Your task to perform on an android device: Open network settings Image 0: 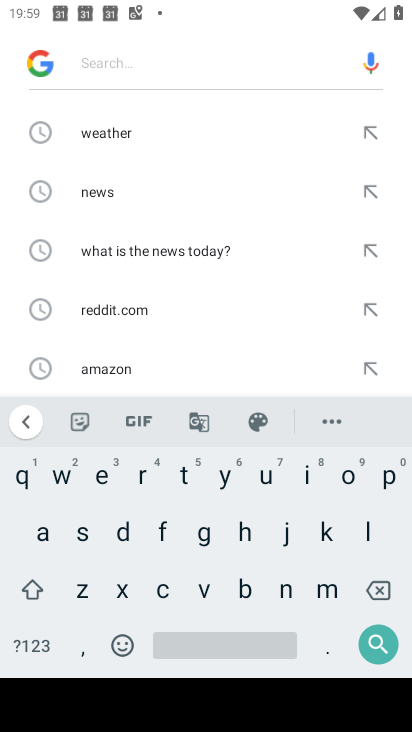
Step 0: press home button
Your task to perform on an android device: Open network settings Image 1: 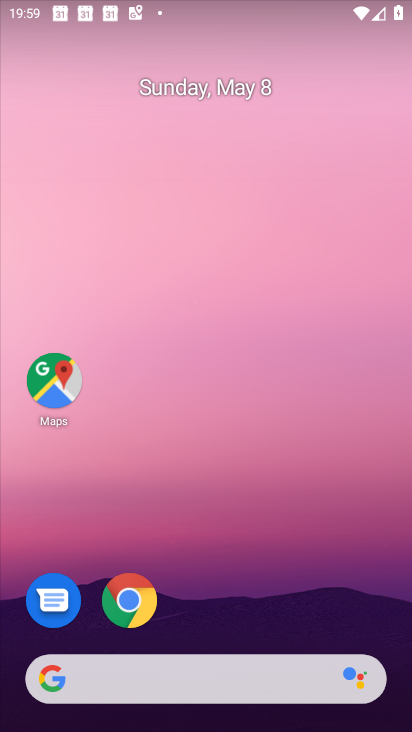
Step 1: drag from (305, 690) to (274, 272)
Your task to perform on an android device: Open network settings Image 2: 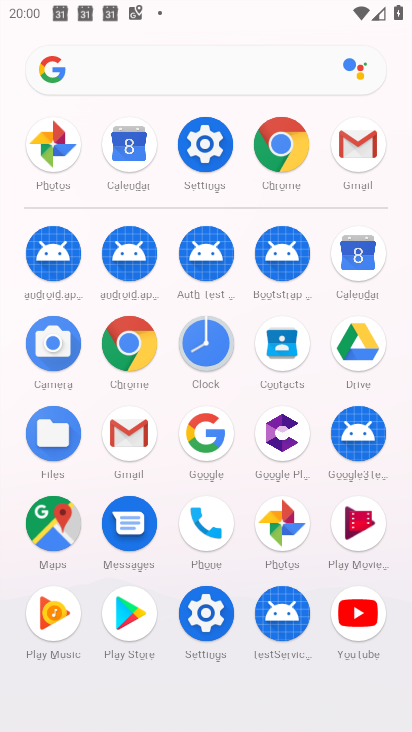
Step 2: click (205, 611)
Your task to perform on an android device: Open network settings Image 3: 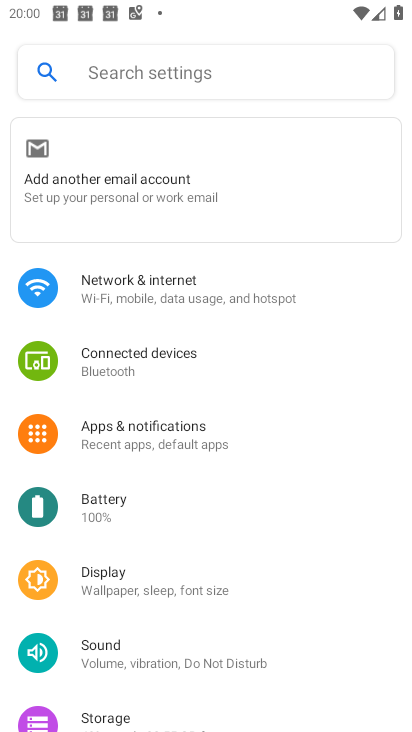
Step 3: click (163, 76)
Your task to perform on an android device: Open network settings Image 4: 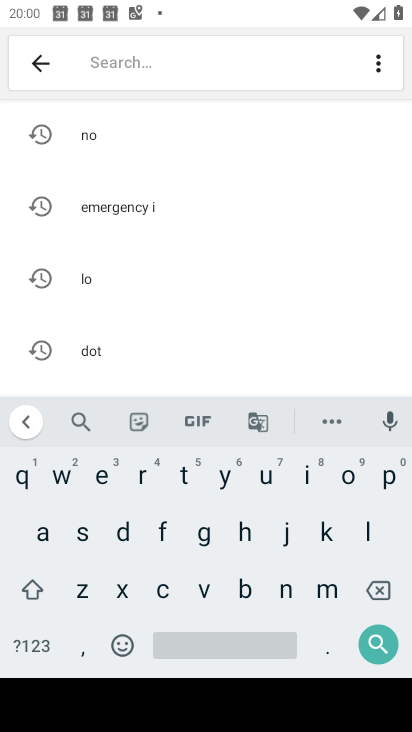
Step 4: click (292, 619)
Your task to perform on an android device: Open network settings Image 5: 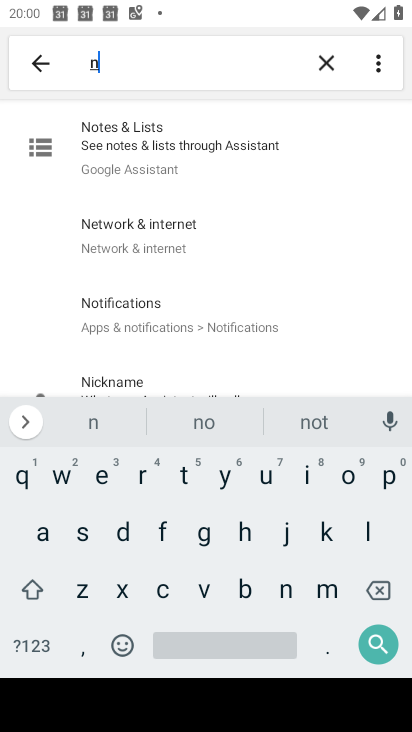
Step 5: click (100, 479)
Your task to perform on an android device: Open network settings Image 6: 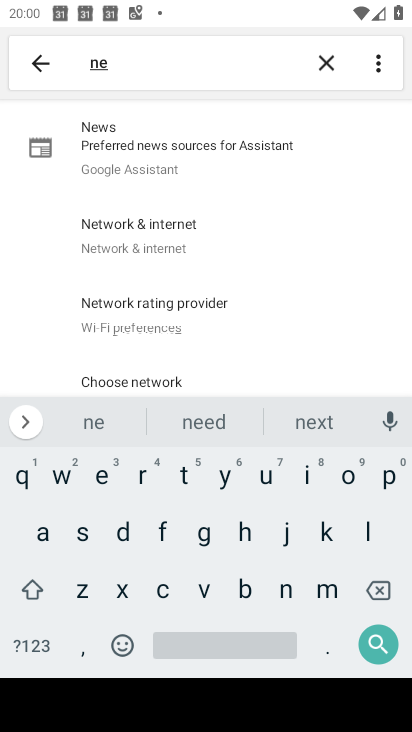
Step 6: click (188, 480)
Your task to perform on an android device: Open network settings Image 7: 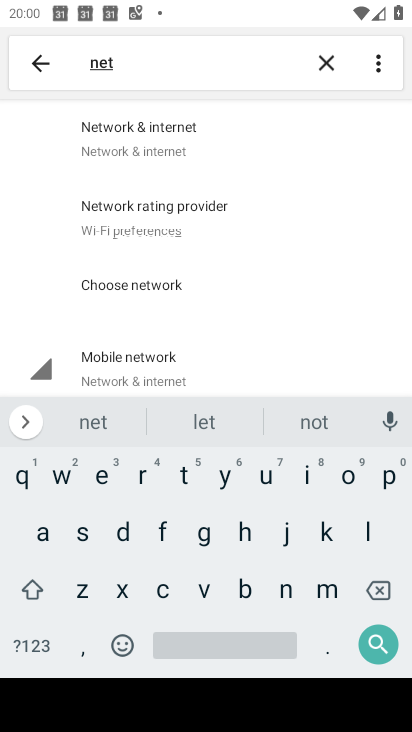
Step 7: click (170, 146)
Your task to perform on an android device: Open network settings Image 8: 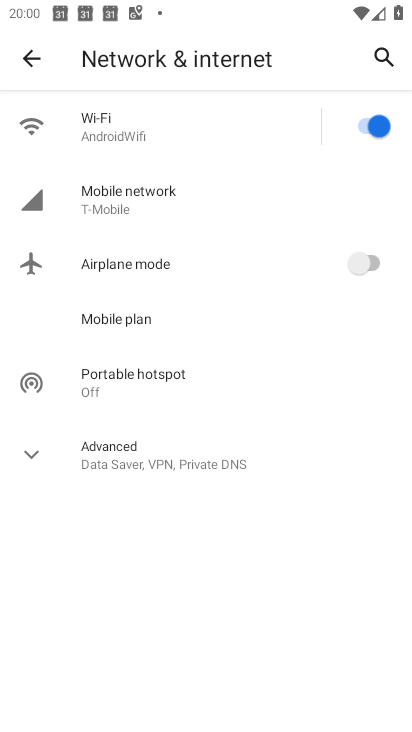
Step 8: task complete